Your task to perform on an android device: Open display settings Image 0: 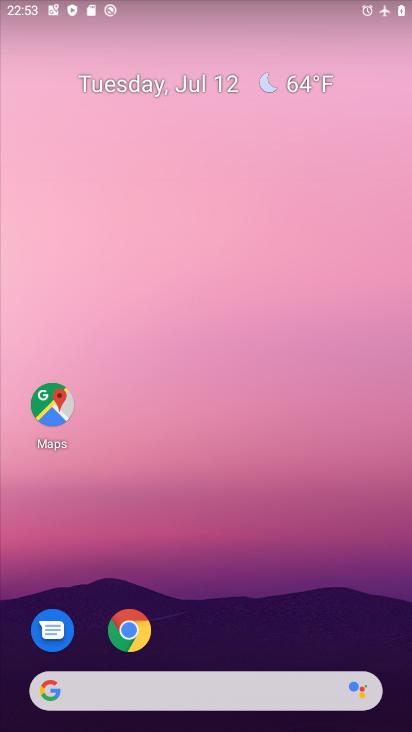
Step 0: drag from (188, 664) to (160, 43)
Your task to perform on an android device: Open display settings Image 1: 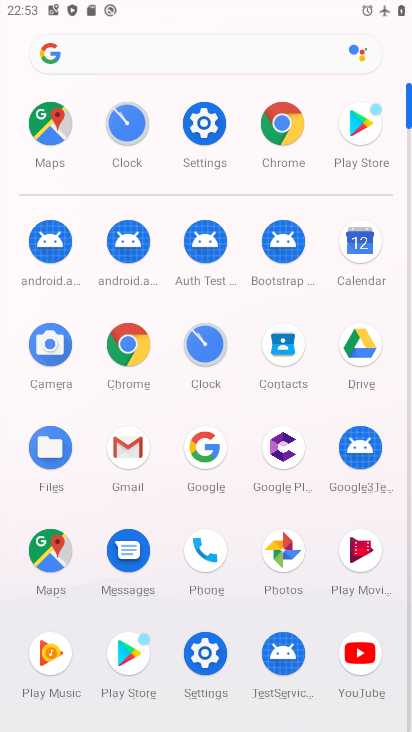
Step 1: click (214, 650)
Your task to perform on an android device: Open display settings Image 2: 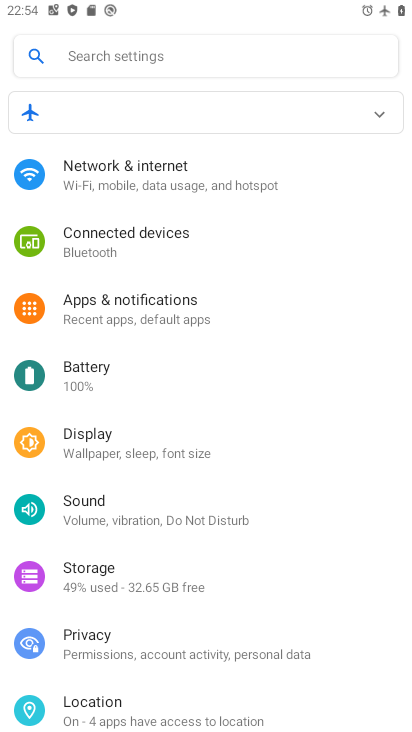
Step 2: click (77, 425)
Your task to perform on an android device: Open display settings Image 3: 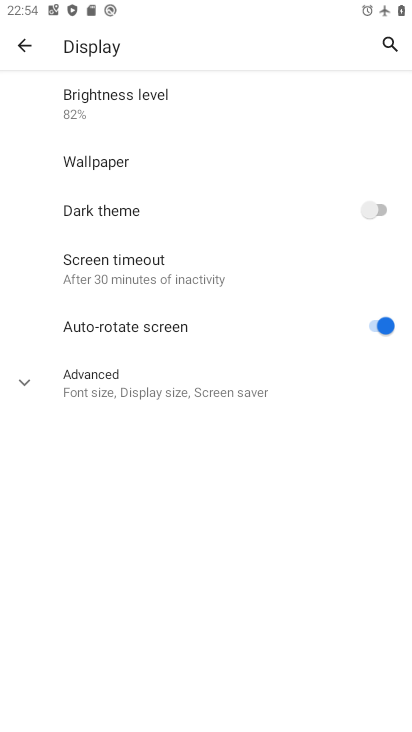
Step 3: task complete